Your task to perform on an android device: open device folders in google photos Image 0: 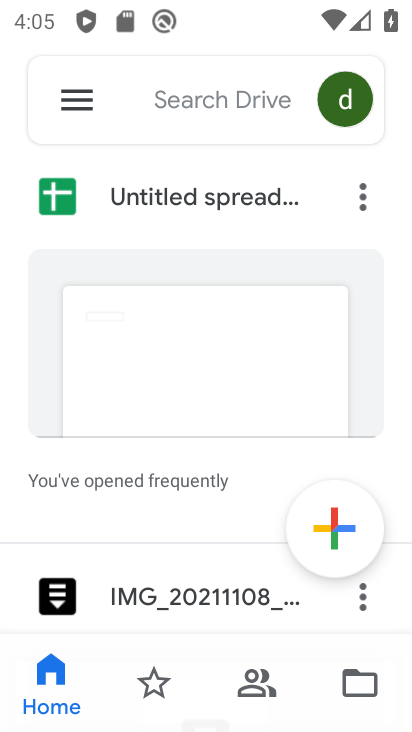
Step 0: press home button
Your task to perform on an android device: open device folders in google photos Image 1: 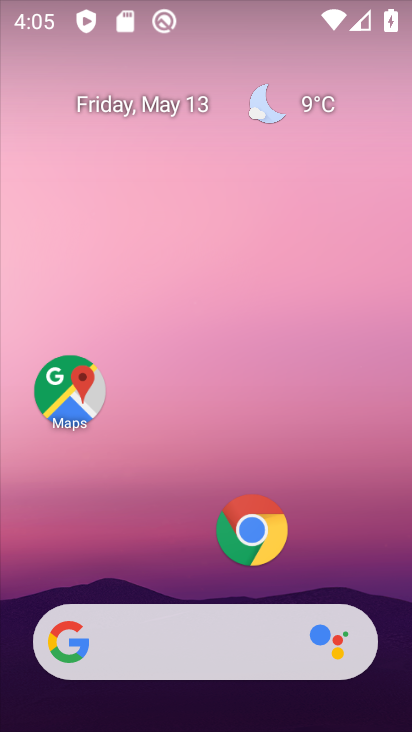
Step 1: drag from (203, 578) to (225, 106)
Your task to perform on an android device: open device folders in google photos Image 2: 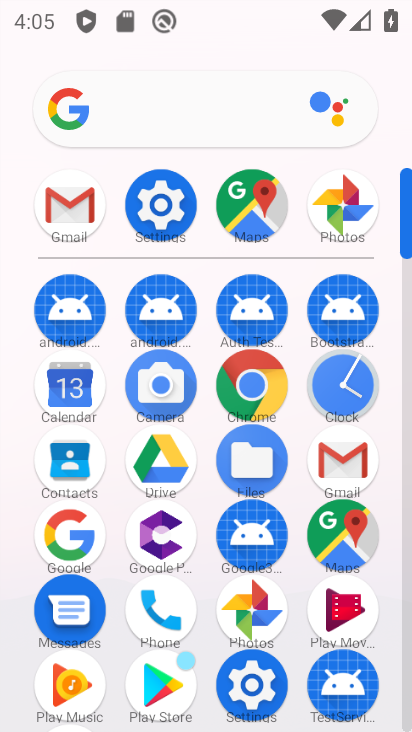
Step 2: click (340, 197)
Your task to perform on an android device: open device folders in google photos Image 3: 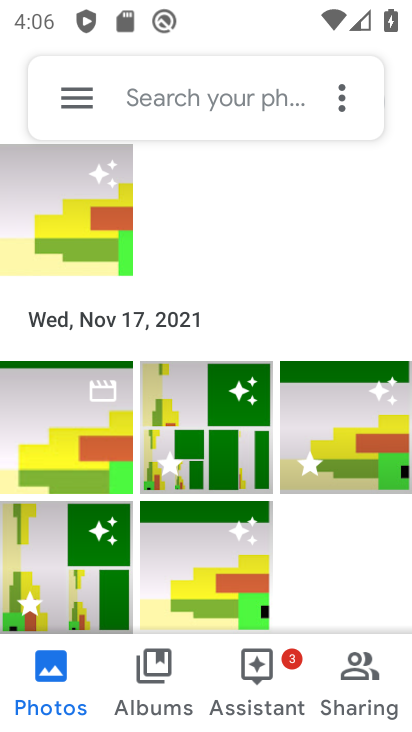
Step 3: click (188, 95)
Your task to perform on an android device: open device folders in google photos Image 4: 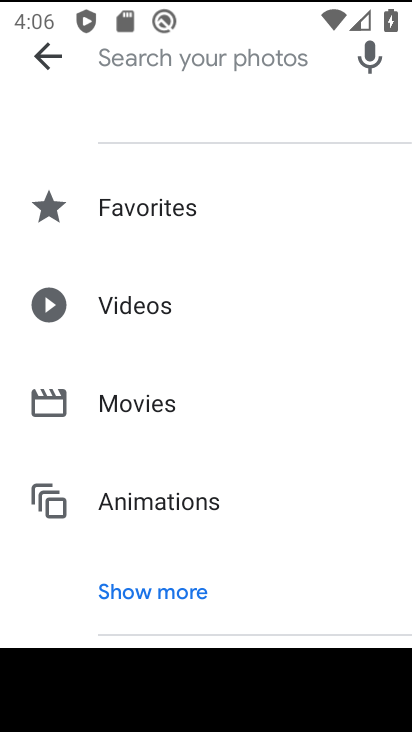
Step 4: click (52, 57)
Your task to perform on an android device: open device folders in google photos Image 5: 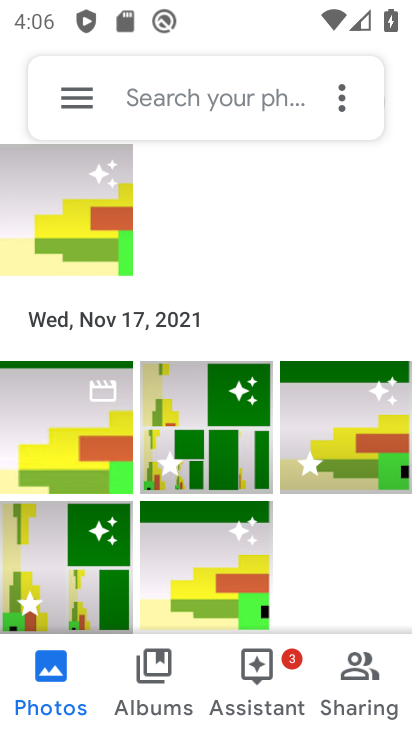
Step 5: click (68, 94)
Your task to perform on an android device: open device folders in google photos Image 6: 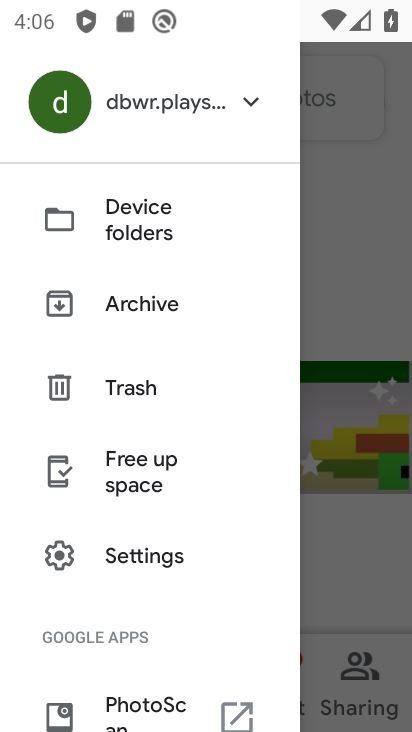
Step 6: click (89, 212)
Your task to perform on an android device: open device folders in google photos Image 7: 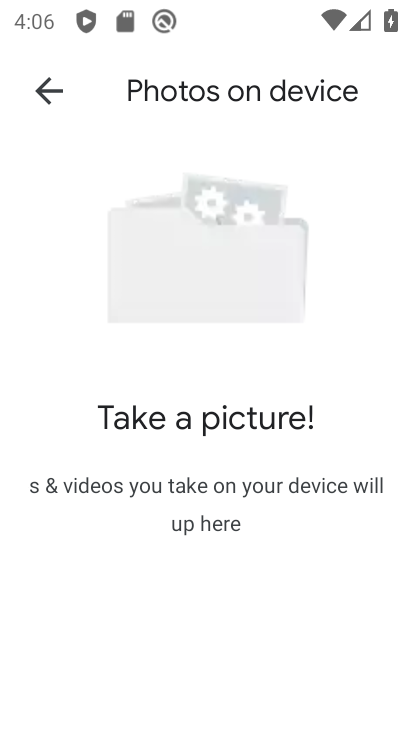
Step 7: task complete